Your task to perform on an android device: Do I have any events tomorrow? Image 0: 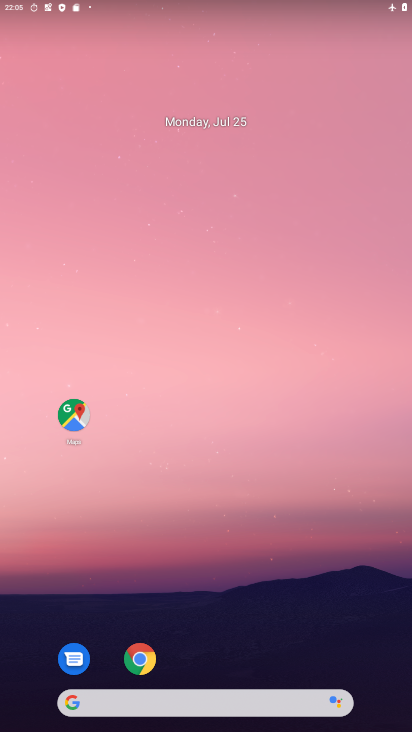
Step 0: drag from (215, 649) to (208, 234)
Your task to perform on an android device: Do I have any events tomorrow? Image 1: 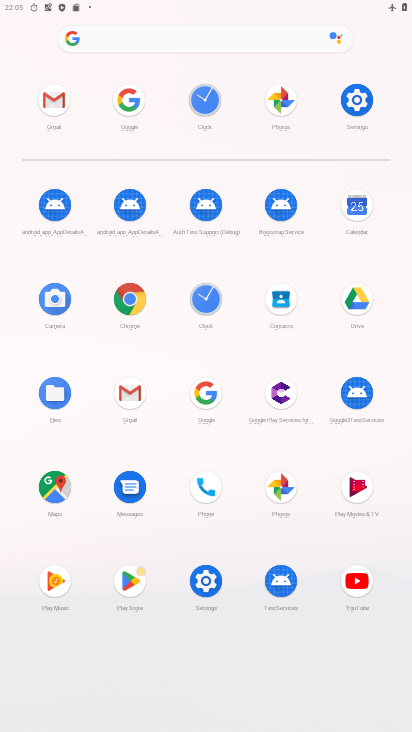
Step 1: click (358, 227)
Your task to perform on an android device: Do I have any events tomorrow? Image 2: 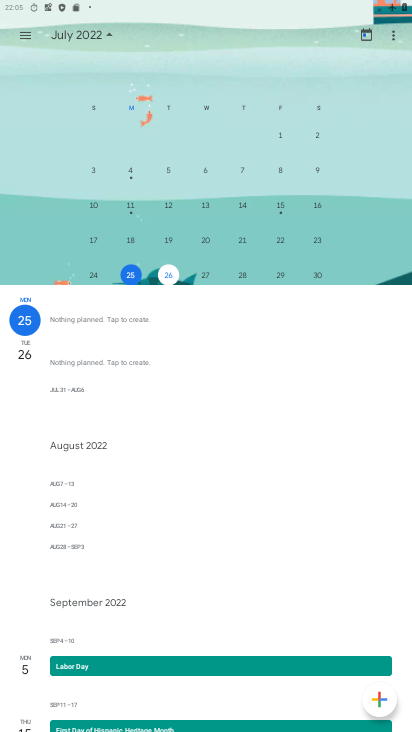
Step 2: task complete